Your task to perform on an android device: empty trash in the gmail app Image 0: 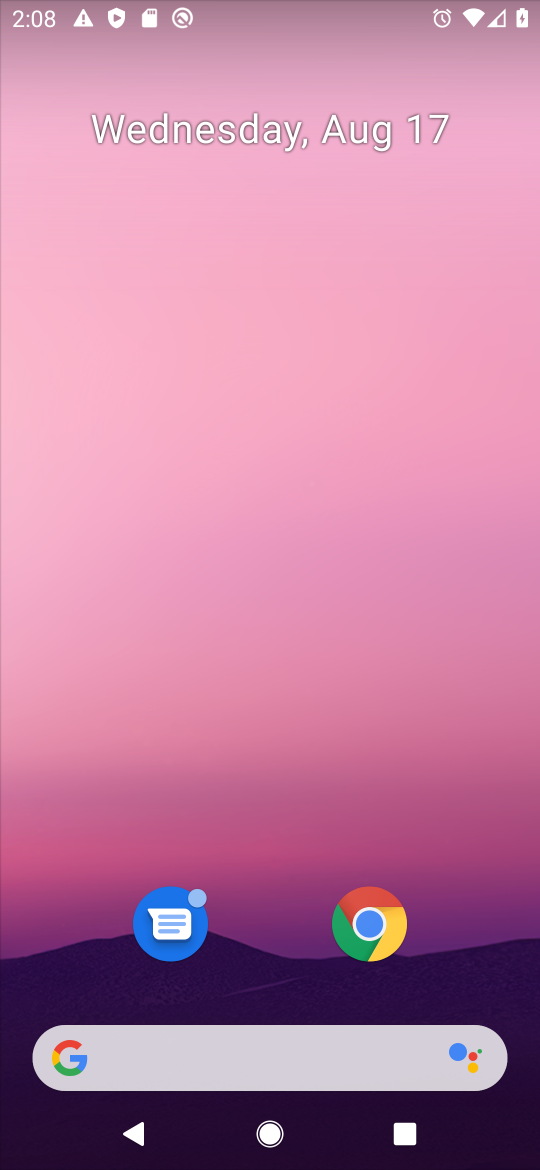
Step 0: drag from (326, 902) to (225, 30)
Your task to perform on an android device: empty trash in the gmail app Image 1: 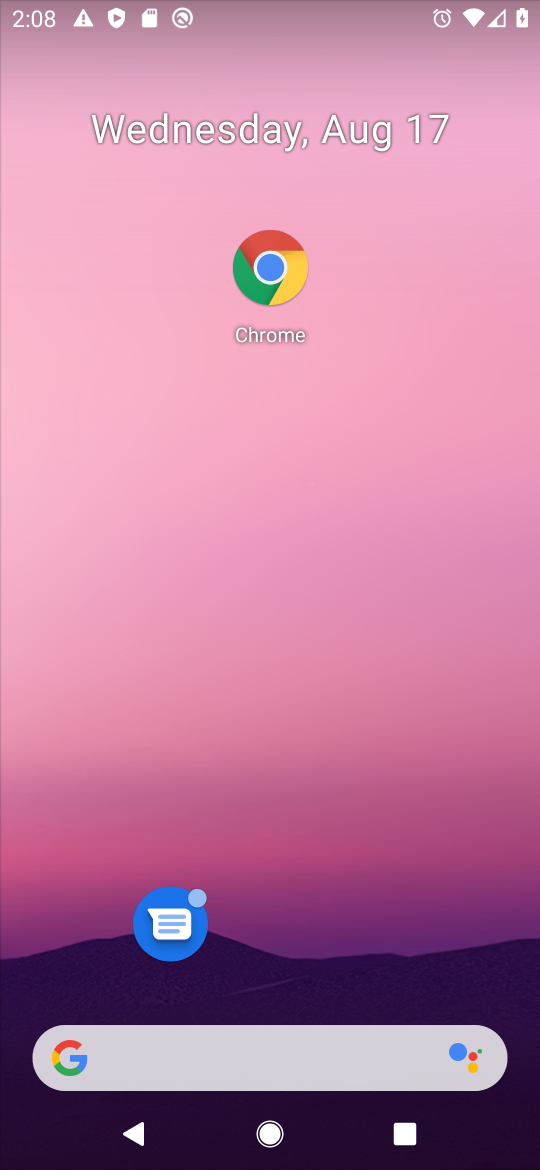
Step 1: drag from (337, 991) to (201, 99)
Your task to perform on an android device: empty trash in the gmail app Image 2: 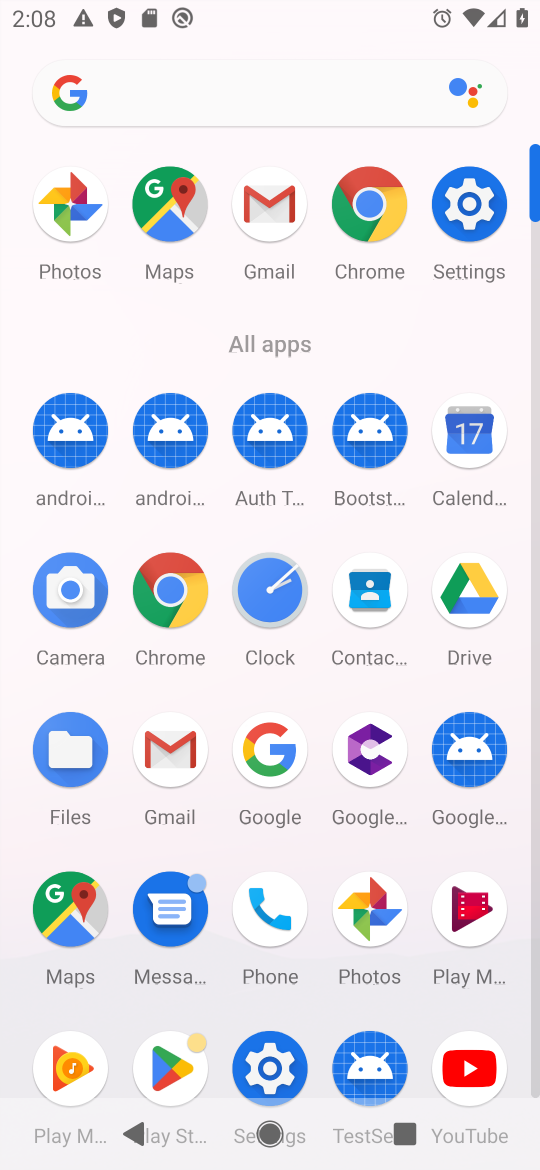
Step 2: click (159, 786)
Your task to perform on an android device: empty trash in the gmail app Image 3: 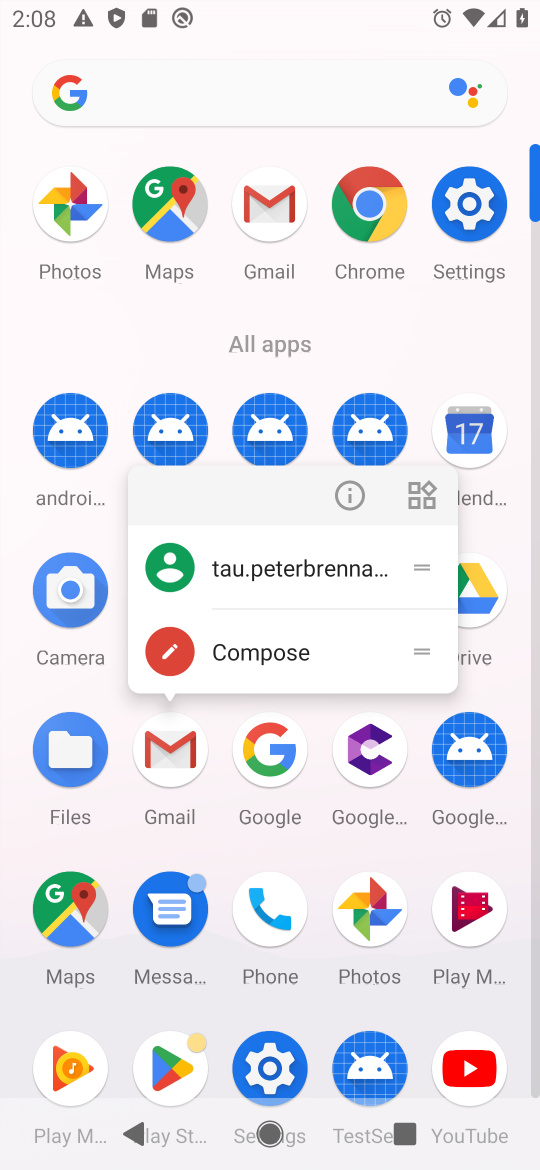
Step 3: click (159, 786)
Your task to perform on an android device: empty trash in the gmail app Image 4: 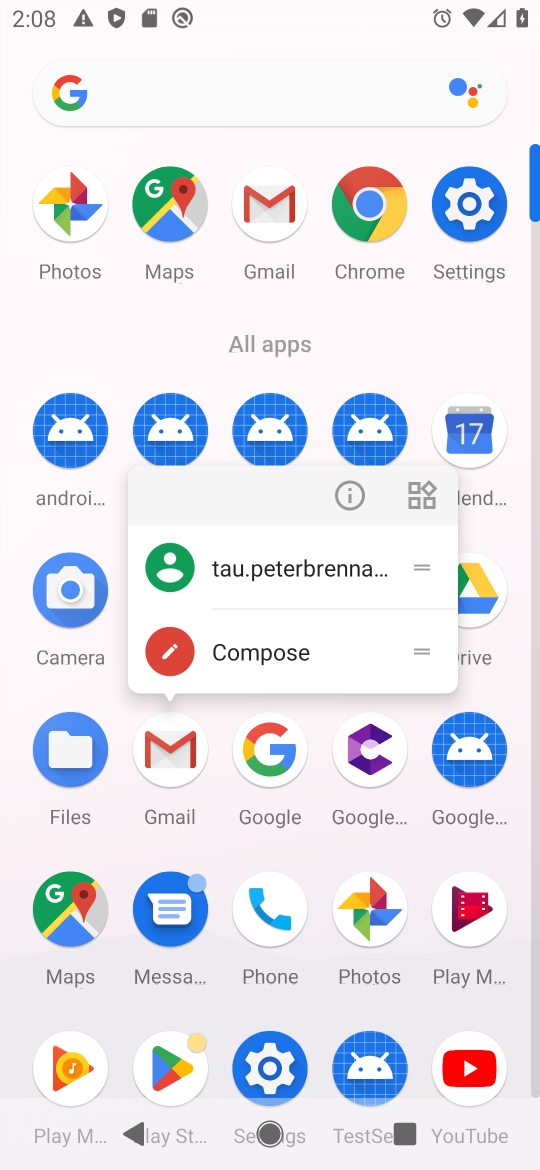
Step 4: click (163, 771)
Your task to perform on an android device: empty trash in the gmail app Image 5: 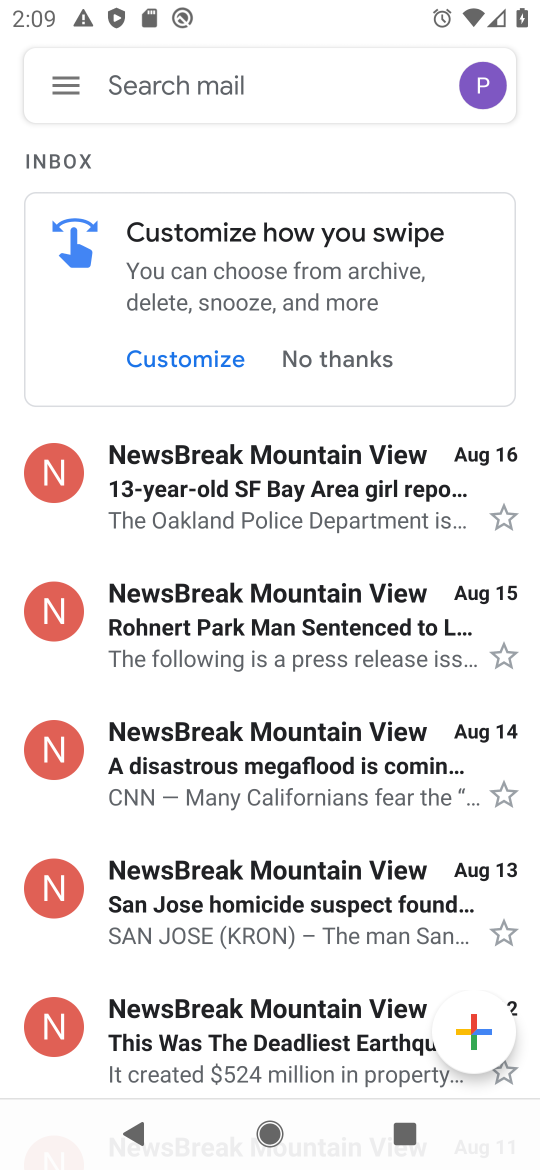
Step 5: click (97, 92)
Your task to perform on an android device: empty trash in the gmail app Image 6: 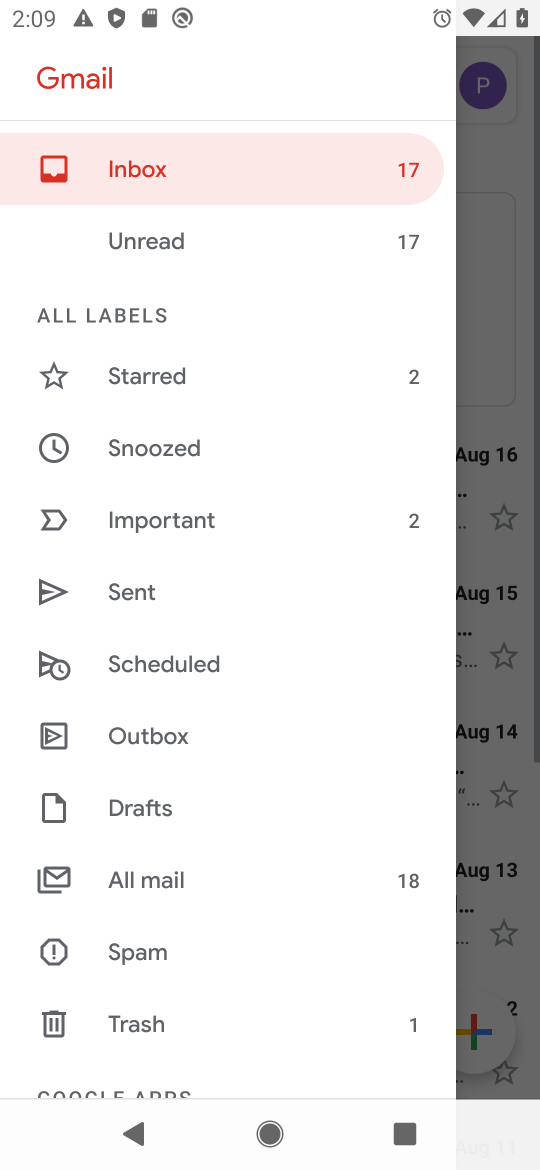
Step 6: click (146, 1021)
Your task to perform on an android device: empty trash in the gmail app Image 7: 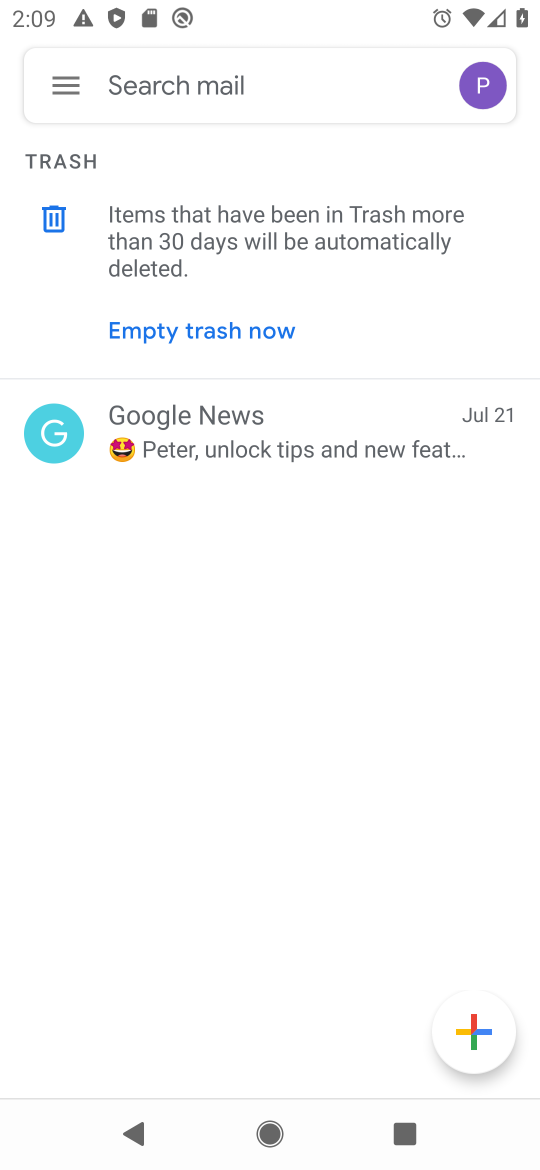
Step 7: click (226, 314)
Your task to perform on an android device: empty trash in the gmail app Image 8: 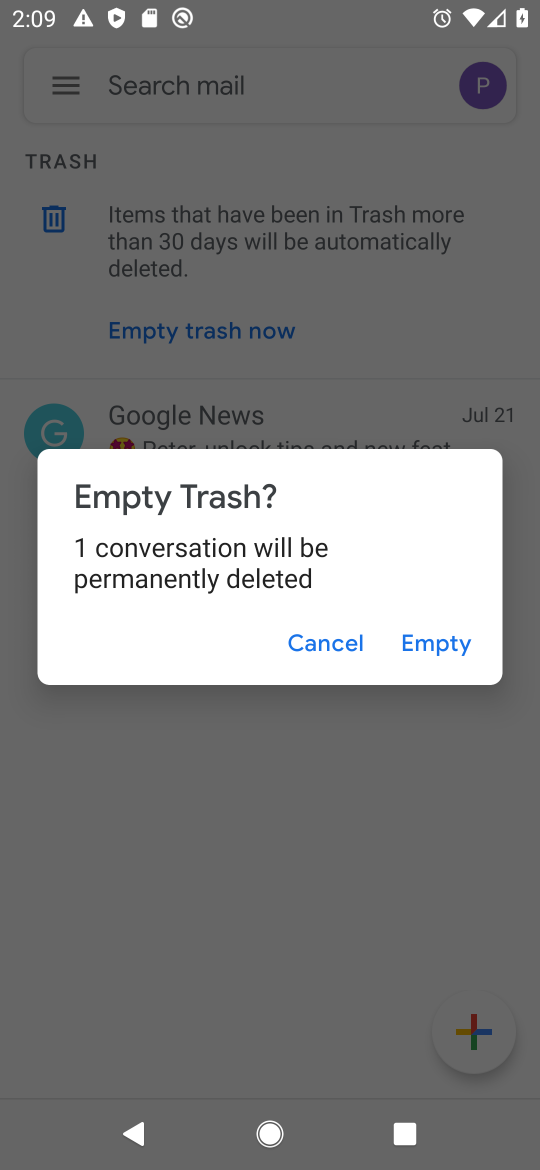
Step 8: click (446, 648)
Your task to perform on an android device: empty trash in the gmail app Image 9: 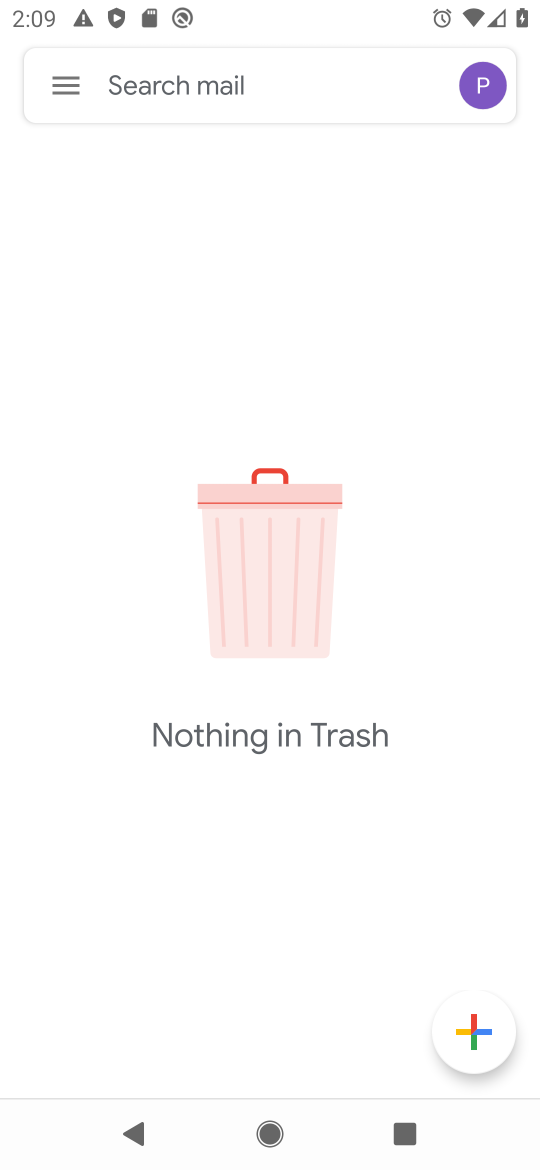
Step 9: task complete